Your task to perform on an android device: Open Chrome and go to settings Image 0: 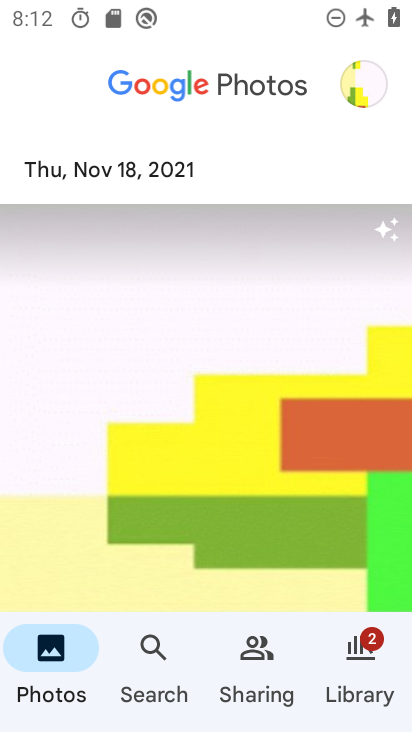
Step 0: press home button
Your task to perform on an android device: Open Chrome and go to settings Image 1: 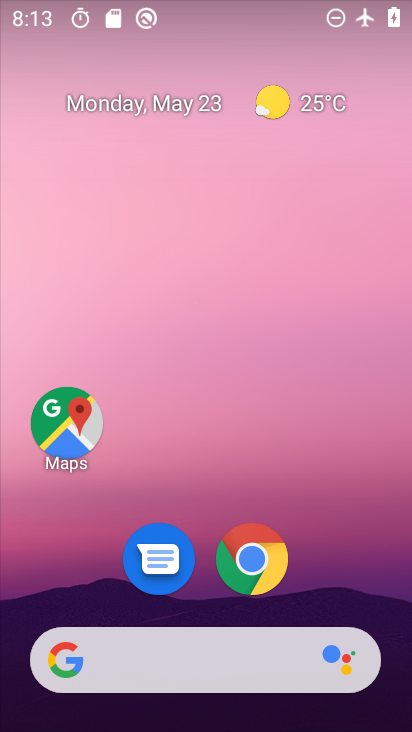
Step 1: drag from (401, 650) to (272, 44)
Your task to perform on an android device: Open Chrome and go to settings Image 2: 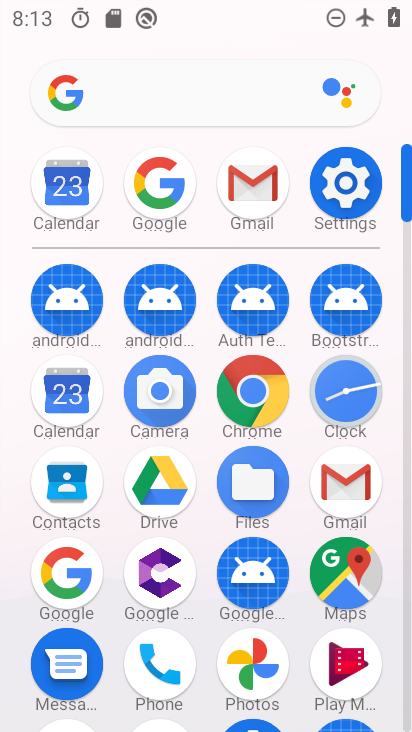
Step 2: click (251, 382)
Your task to perform on an android device: Open Chrome and go to settings Image 3: 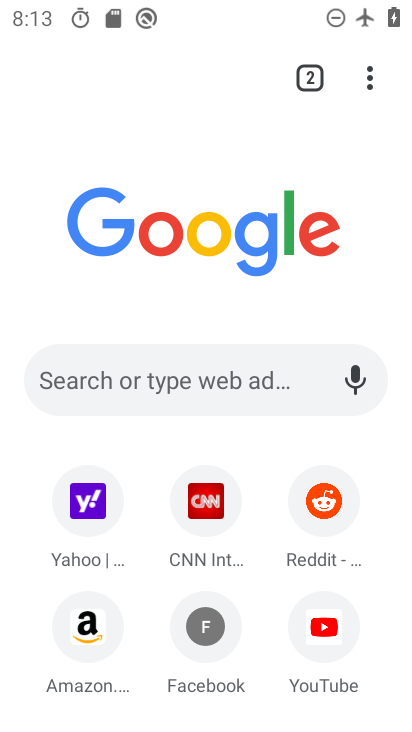
Step 3: click (367, 74)
Your task to perform on an android device: Open Chrome and go to settings Image 4: 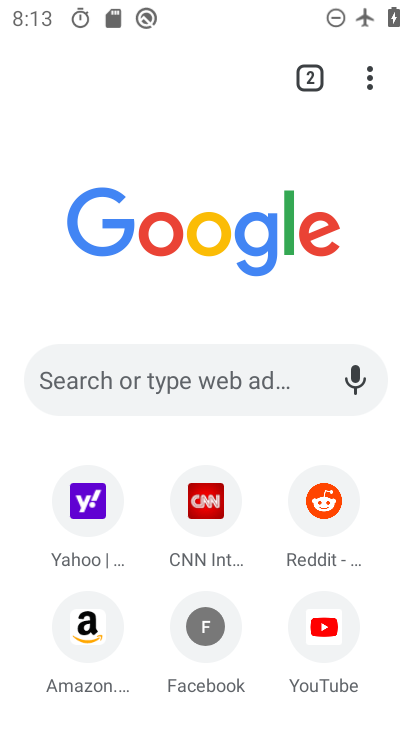
Step 4: click (374, 68)
Your task to perform on an android device: Open Chrome and go to settings Image 5: 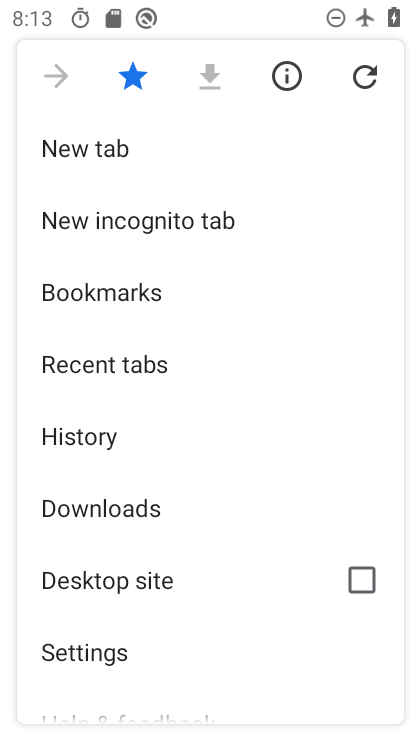
Step 5: click (115, 665)
Your task to perform on an android device: Open Chrome and go to settings Image 6: 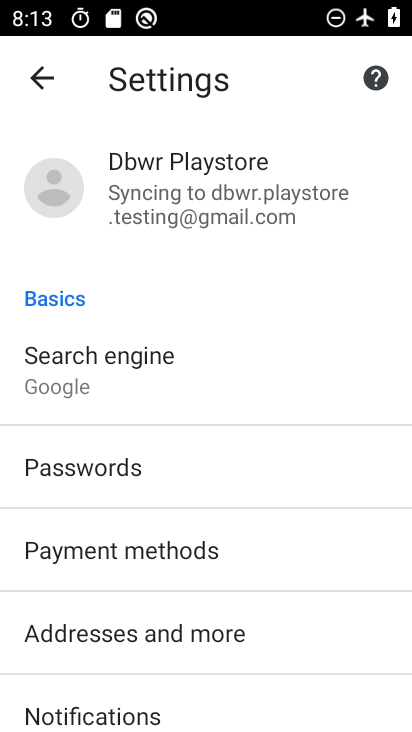
Step 6: task complete